Your task to perform on an android device: change the clock display to digital Image 0: 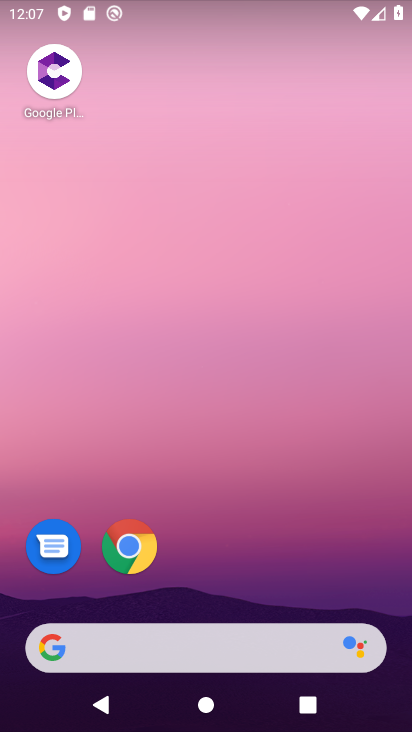
Step 0: drag from (216, 436) to (205, 18)
Your task to perform on an android device: change the clock display to digital Image 1: 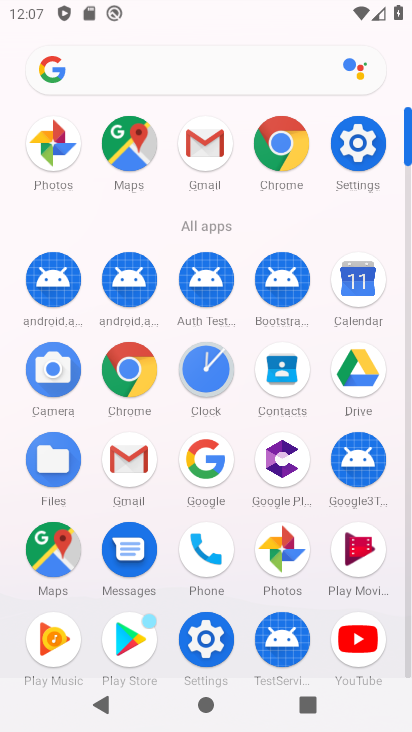
Step 1: click (225, 363)
Your task to perform on an android device: change the clock display to digital Image 2: 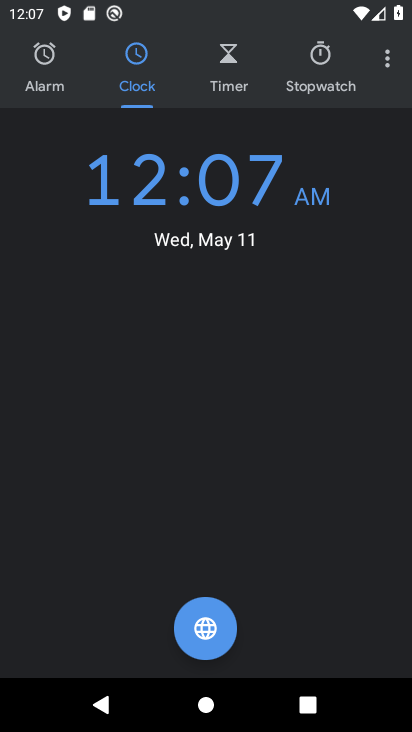
Step 2: click (383, 54)
Your task to perform on an android device: change the clock display to digital Image 3: 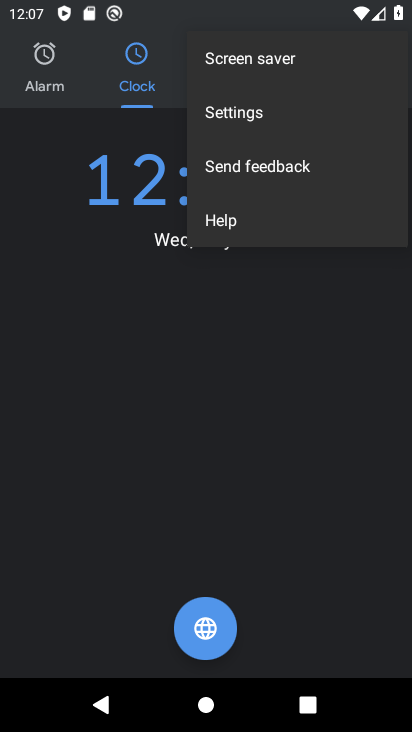
Step 3: click (240, 111)
Your task to perform on an android device: change the clock display to digital Image 4: 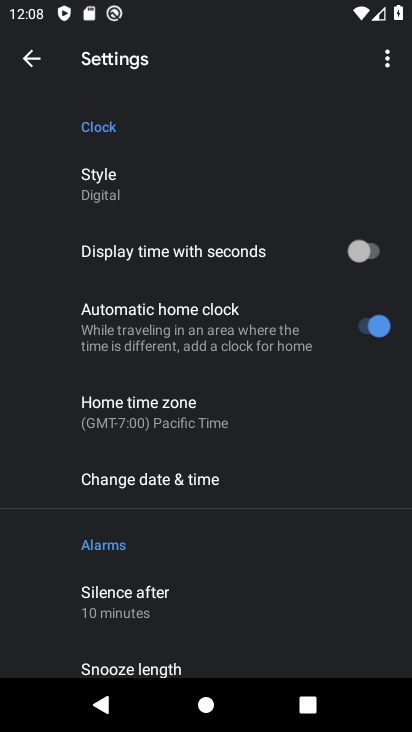
Step 4: task complete